Your task to perform on an android device: turn on javascript in the chrome app Image 0: 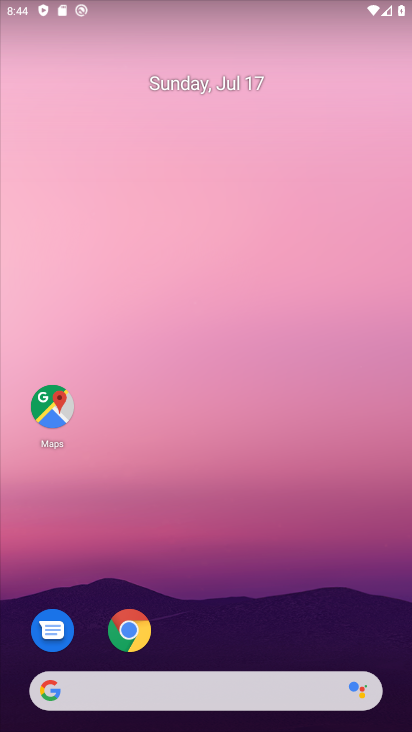
Step 0: click (142, 636)
Your task to perform on an android device: turn on javascript in the chrome app Image 1: 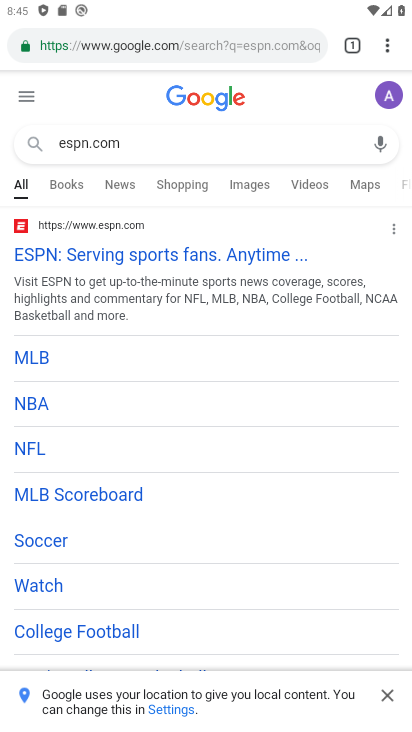
Step 1: click (394, 42)
Your task to perform on an android device: turn on javascript in the chrome app Image 2: 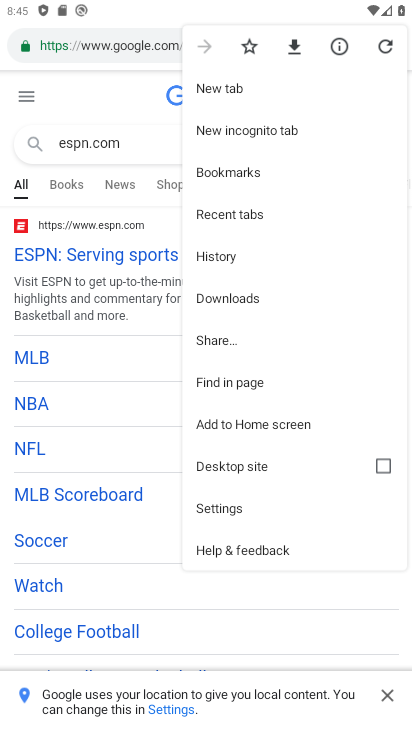
Step 2: click (282, 526)
Your task to perform on an android device: turn on javascript in the chrome app Image 3: 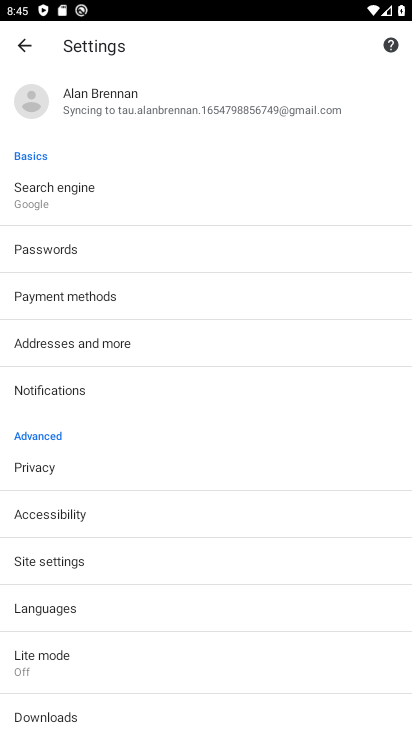
Step 3: drag from (149, 678) to (190, 397)
Your task to perform on an android device: turn on javascript in the chrome app Image 4: 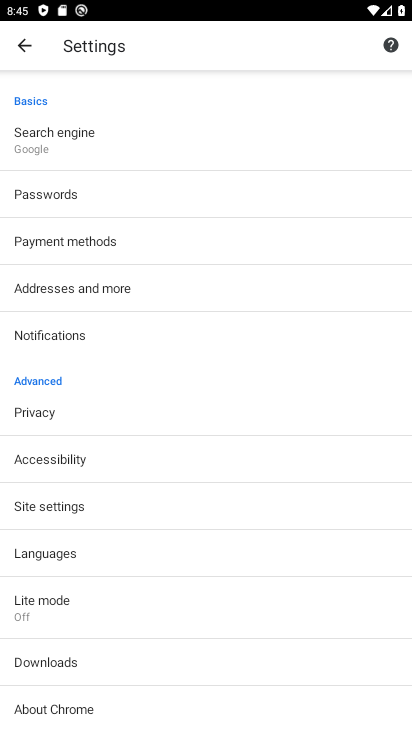
Step 4: click (127, 603)
Your task to perform on an android device: turn on javascript in the chrome app Image 5: 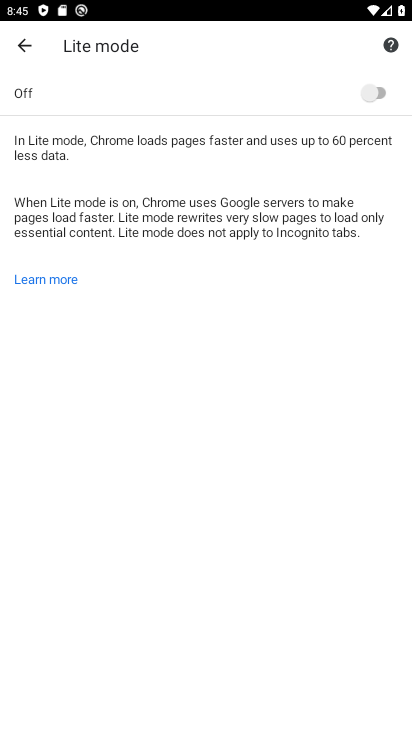
Step 5: click (371, 87)
Your task to perform on an android device: turn on javascript in the chrome app Image 6: 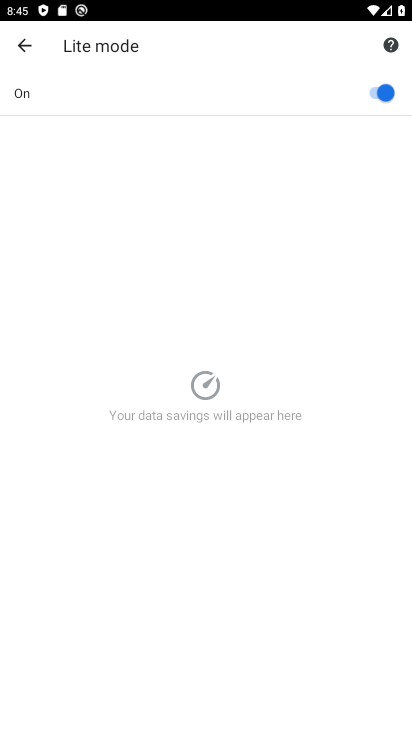
Step 6: task complete